Your task to perform on an android device: turn notification dots off Image 0: 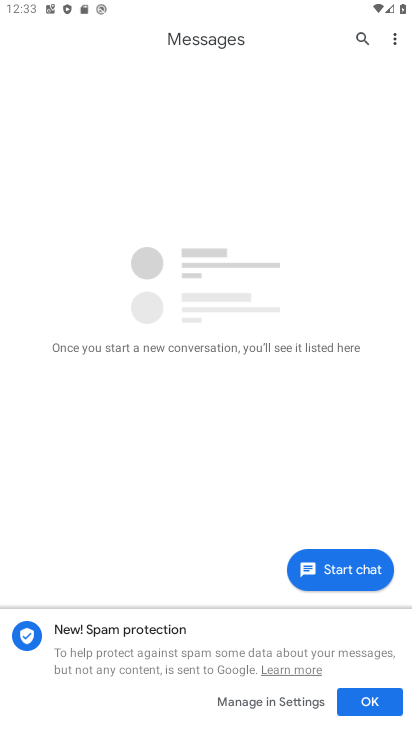
Step 0: press home button
Your task to perform on an android device: turn notification dots off Image 1: 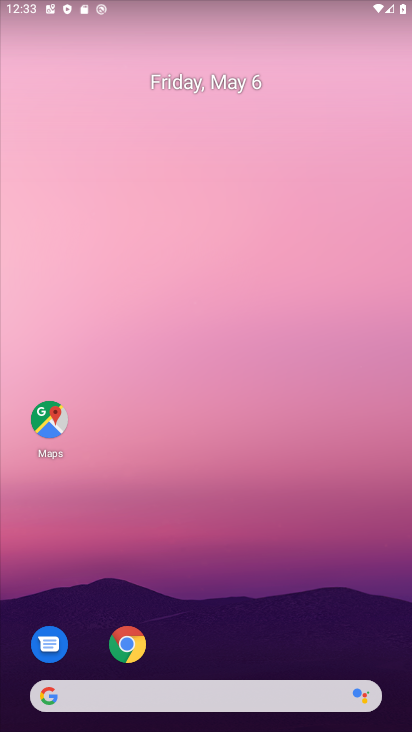
Step 1: drag from (242, 691) to (269, 0)
Your task to perform on an android device: turn notification dots off Image 2: 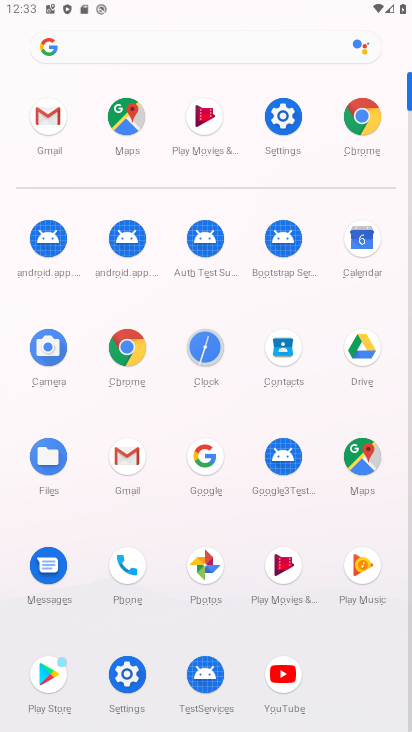
Step 2: click (290, 113)
Your task to perform on an android device: turn notification dots off Image 3: 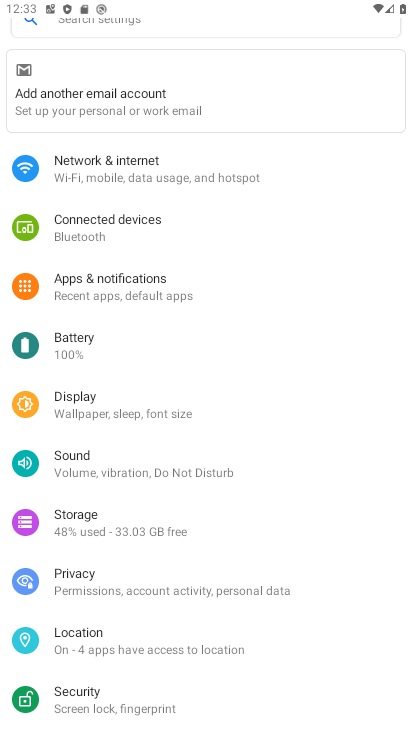
Step 3: click (195, 297)
Your task to perform on an android device: turn notification dots off Image 4: 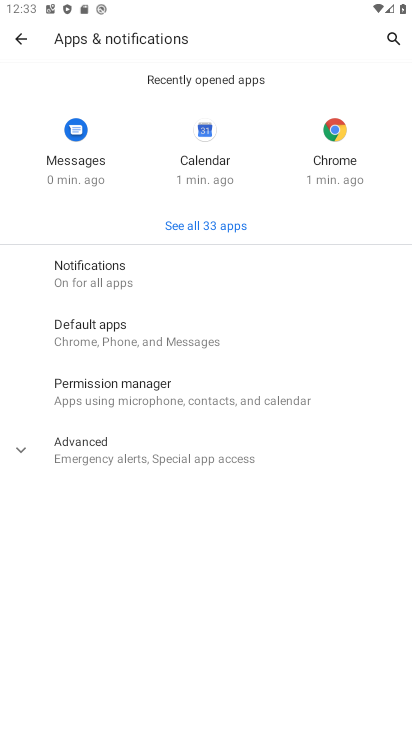
Step 4: press home button
Your task to perform on an android device: turn notification dots off Image 5: 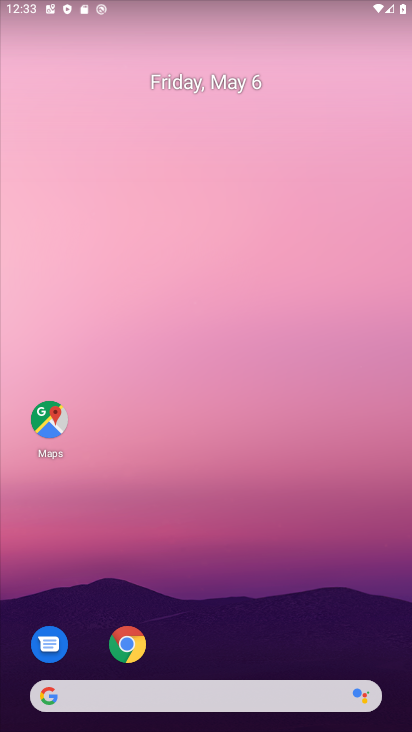
Step 5: drag from (349, 691) to (353, 83)
Your task to perform on an android device: turn notification dots off Image 6: 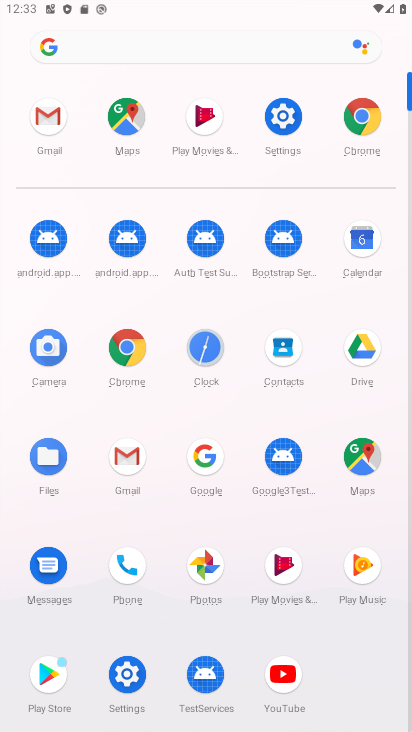
Step 6: click (281, 123)
Your task to perform on an android device: turn notification dots off Image 7: 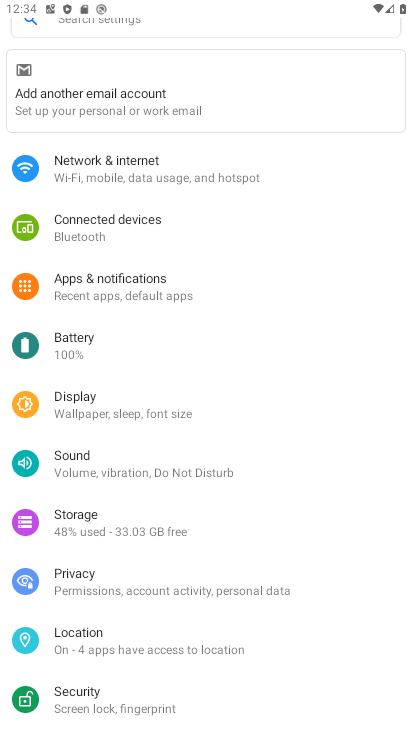
Step 7: click (216, 295)
Your task to perform on an android device: turn notification dots off Image 8: 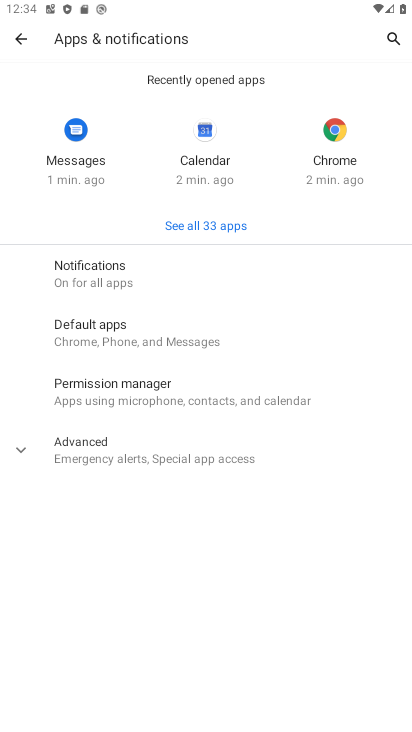
Step 8: click (131, 278)
Your task to perform on an android device: turn notification dots off Image 9: 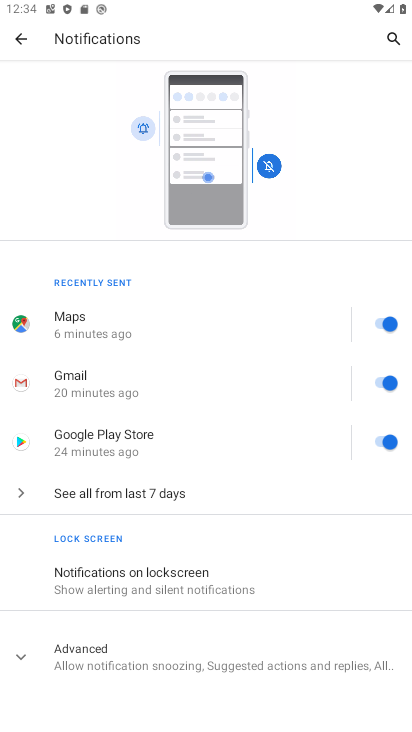
Step 9: drag from (289, 662) to (275, 275)
Your task to perform on an android device: turn notification dots off Image 10: 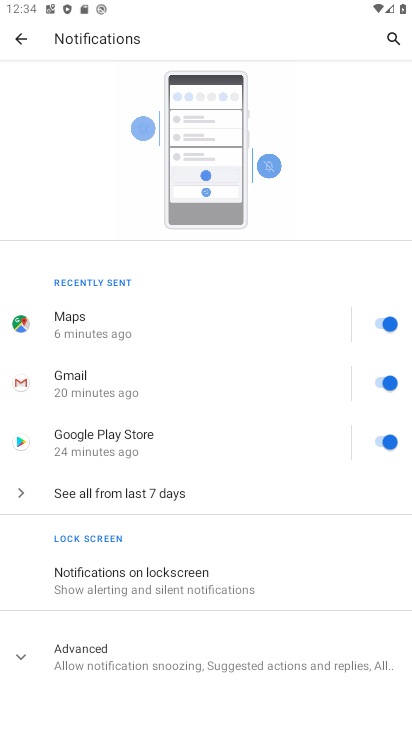
Step 10: click (262, 662)
Your task to perform on an android device: turn notification dots off Image 11: 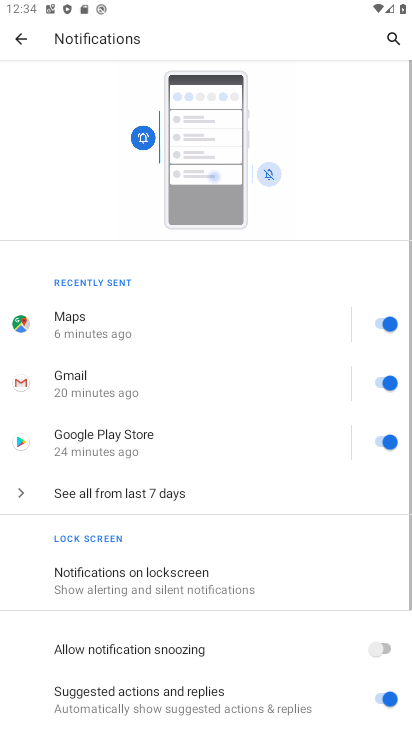
Step 11: drag from (232, 686) to (218, 283)
Your task to perform on an android device: turn notification dots off Image 12: 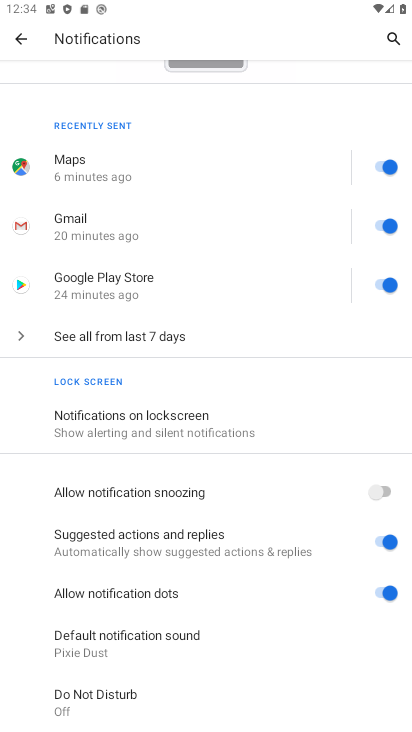
Step 12: click (209, 593)
Your task to perform on an android device: turn notification dots off Image 13: 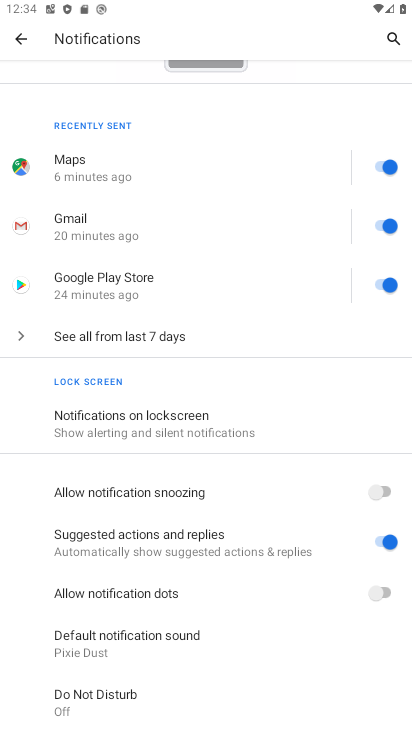
Step 13: task complete